Your task to perform on an android device: toggle improve location accuracy Image 0: 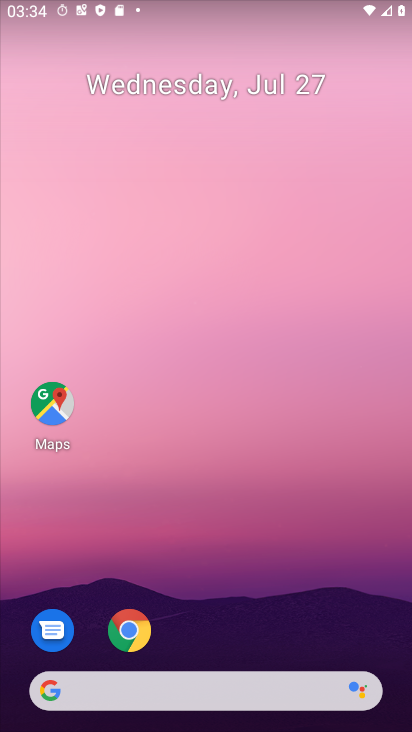
Step 0: drag from (205, 326) to (149, 73)
Your task to perform on an android device: toggle improve location accuracy Image 1: 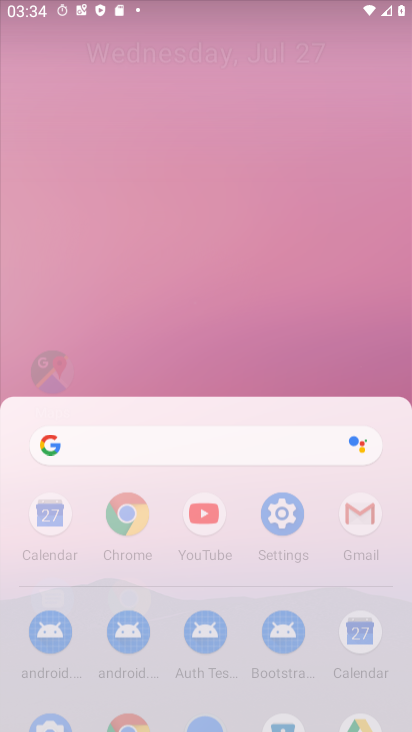
Step 1: drag from (208, 543) to (111, 142)
Your task to perform on an android device: toggle improve location accuracy Image 2: 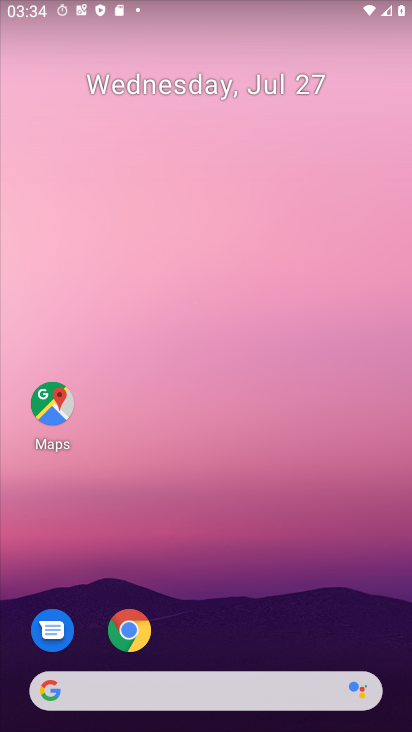
Step 2: drag from (225, 558) to (141, 192)
Your task to perform on an android device: toggle improve location accuracy Image 3: 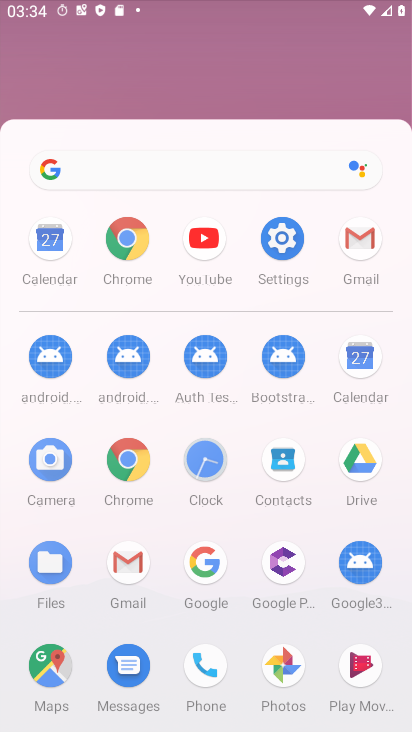
Step 3: drag from (289, 545) to (199, 213)
Your task to perform on an android device: toggle improve location accuracy Image 4: 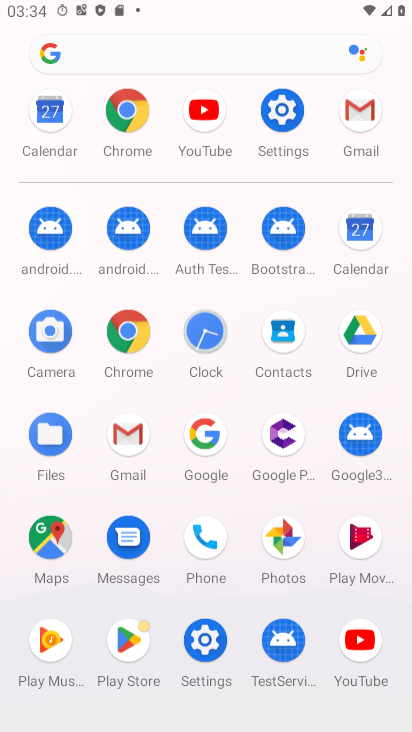
Step 4: drag from (222, 408) to (156, 149)
Your task to perform on an android device: toggle improve location accuracy Image 5: 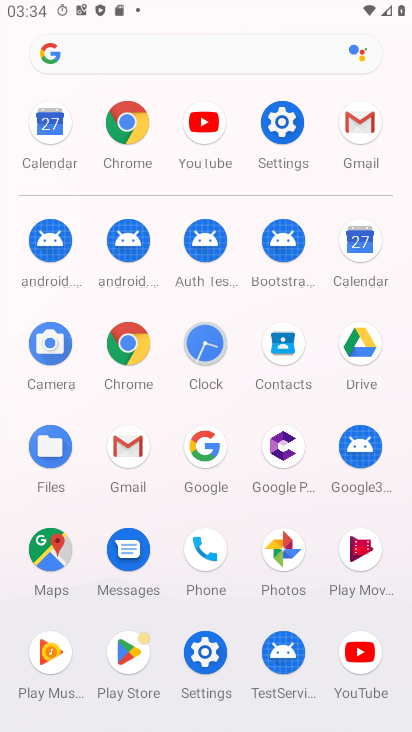
Step 5: click (213, 657)
Your task to perform on an android device: toggle improve location accuracy Image 6: 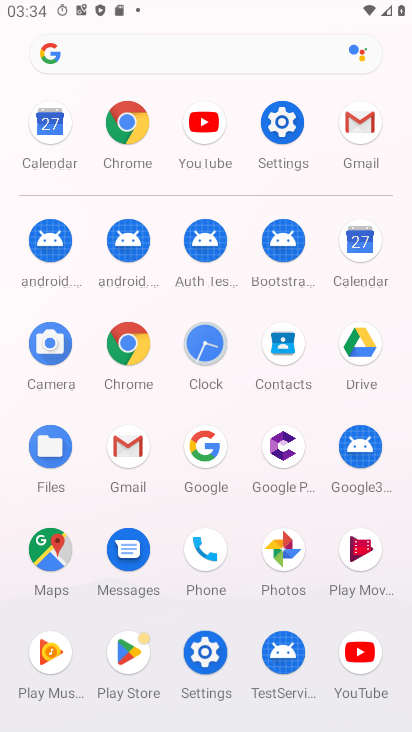
Step 6: click (212, 654)
Your task to perform on an android device: toggle improve location accuracy Image 7: 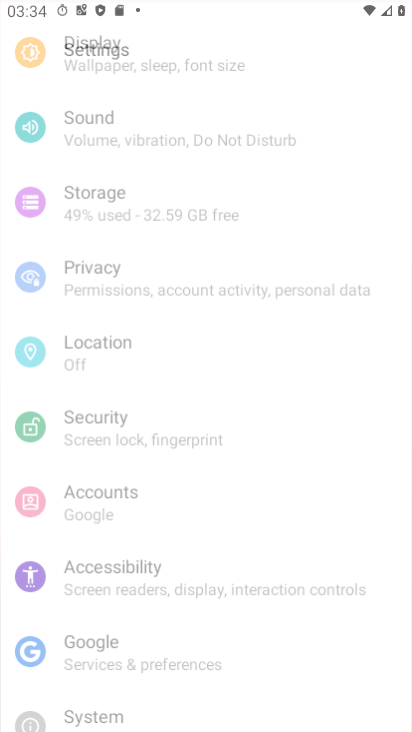
Step 7: click (218, 646)
Your task to perform on an android device: toggle improve location accuracy Image 8: 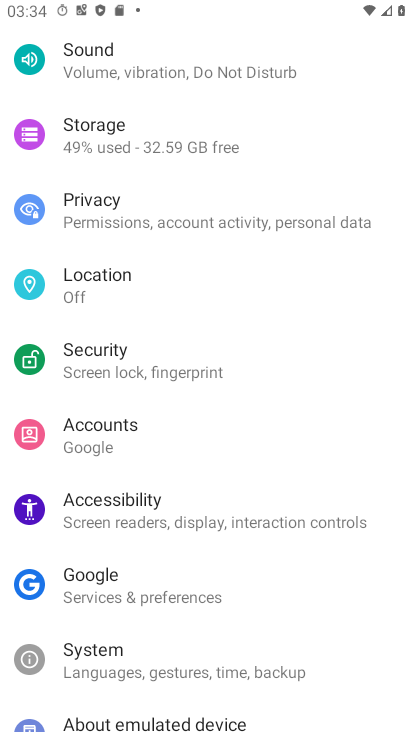
Step 8: click (218, 646)
Your task to perform on an android device: toggle improve location accuracy Image 9: 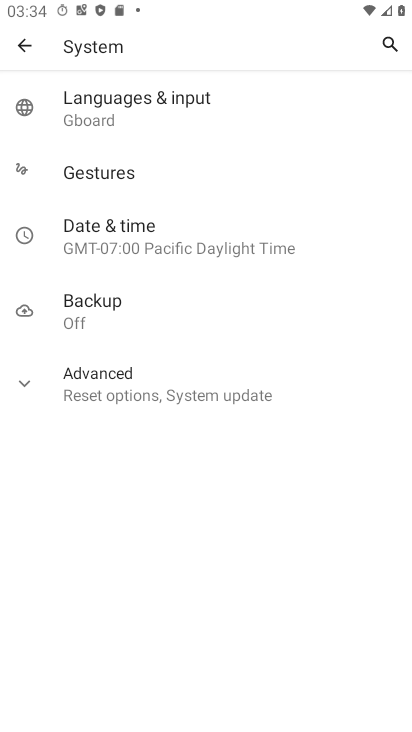
Step 9: click (24, 49)
Your task to perform on an android device: toggle improve location accuracy Image 10: 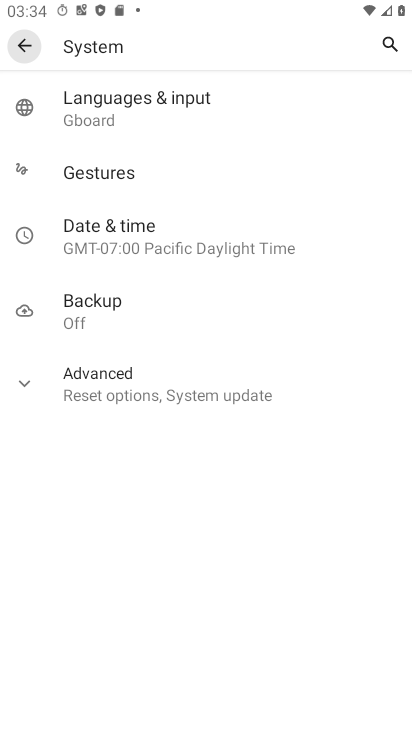
Step 10: click (24, 49)
Your task to perform on an android device: toggle improve location accuracy Image 11: 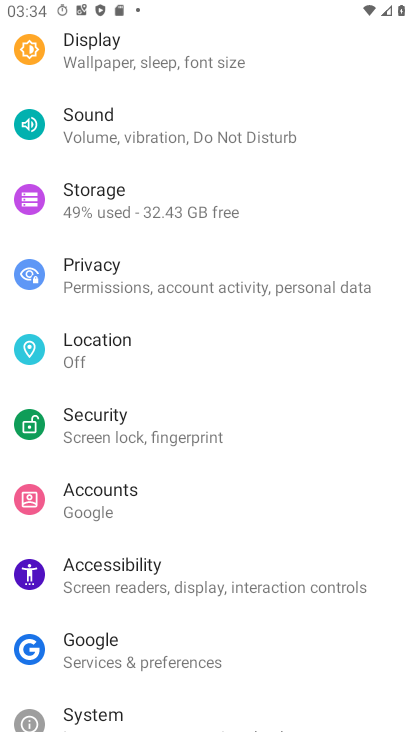
Step 11: click (100, 333)
Your task to perform on an android device: toggle improve location accuracy Image 12: 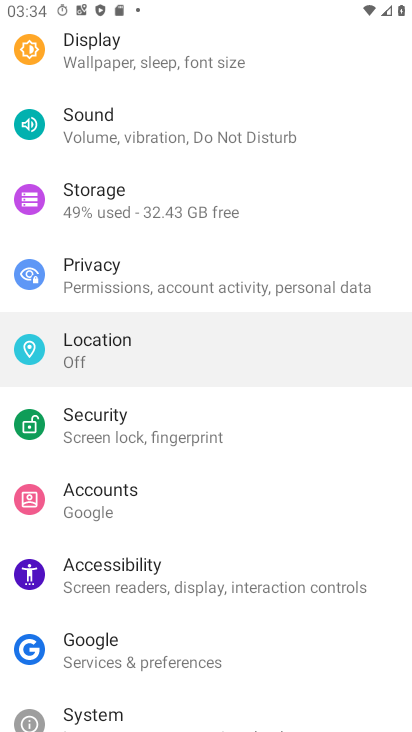
Step 12: click (98, 336)
Your task to perform on an android device: toggle improve location accuracy Image 13: 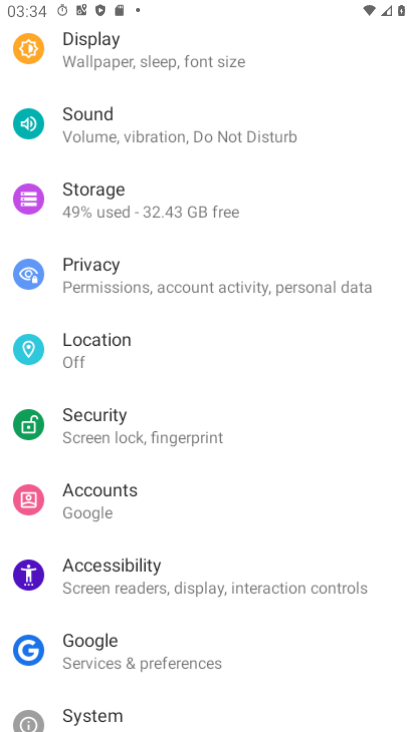
Step 13: click (95, 340)
Your task to perform on an android device: toggle improve location accuracy Image 14: 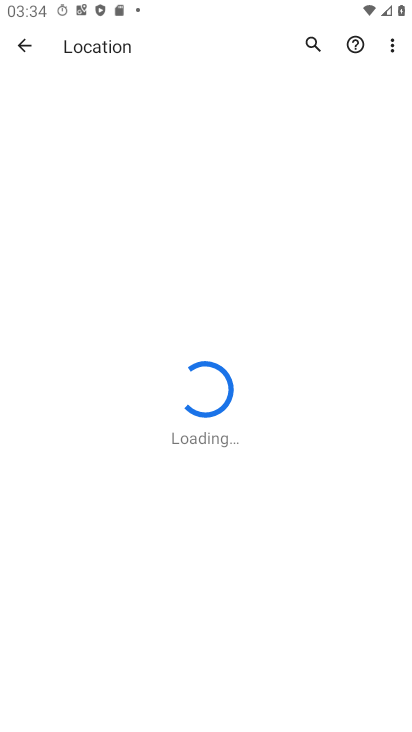
Step 14: click (21, 39)
Your task to perform on an android device: toggle improve location accuracy Image 15: 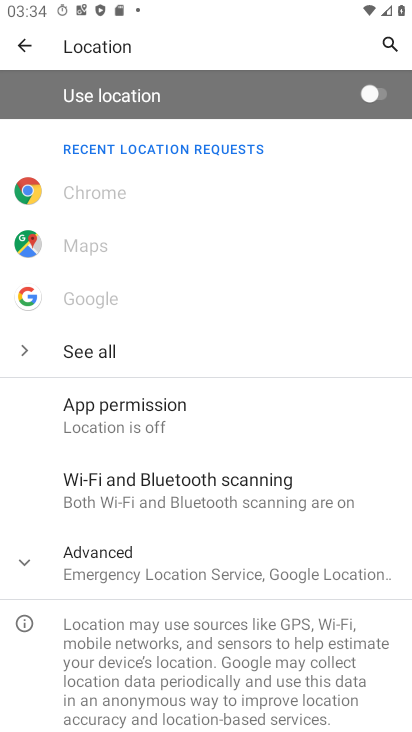
Step 15: click (97, 560)
Your task to perform on an android device: toggle improve location accuracy Image 16: 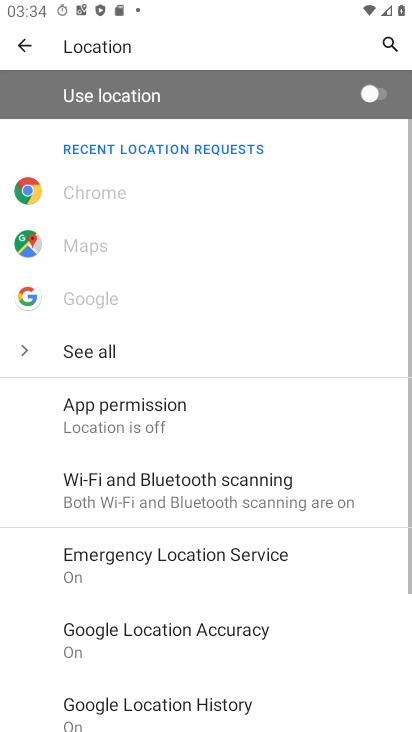
Step 16: drag from (233, 532) to (235, 278)
Your task to perform on an android device: toggle improve location accuracy Image 17: 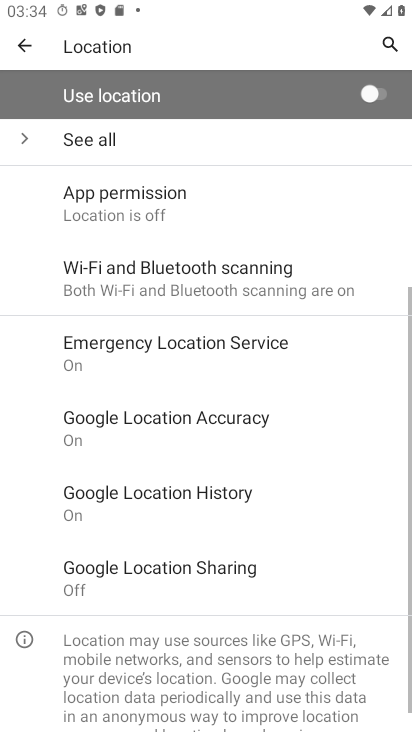
Step 17: drag from (256, 479) to (242, 188)
Your task to perform on an android device: toggle improve location accuracy Image 18: 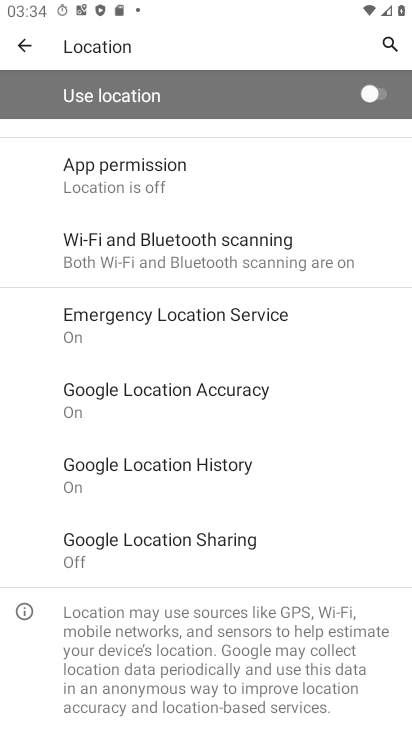
Step 18: click (173, 401)
Your task to perform on an android device: toggle improve location accuracy Image 19: 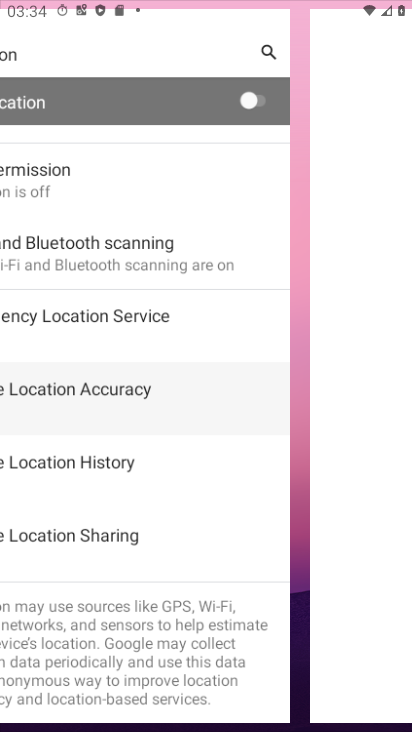
Step 19: click (174, 400)
Your task to perform on an android device: toggle improve location accuracy Image 20: 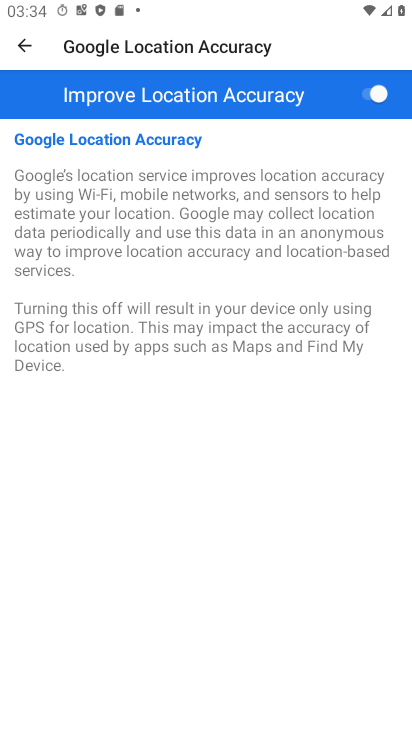
Step 20: click (383, 87)
Your task to perform on an android device: toggle improve location accuracy Image 21: 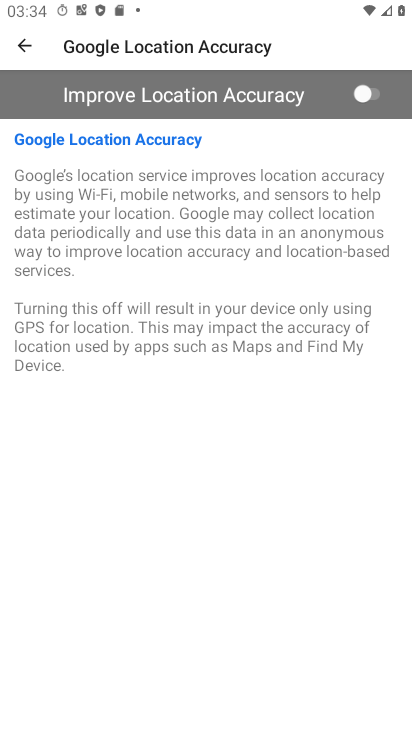
Step 21: task complete